Your task to perform on an android device: Go to Wikipedia Image 0: 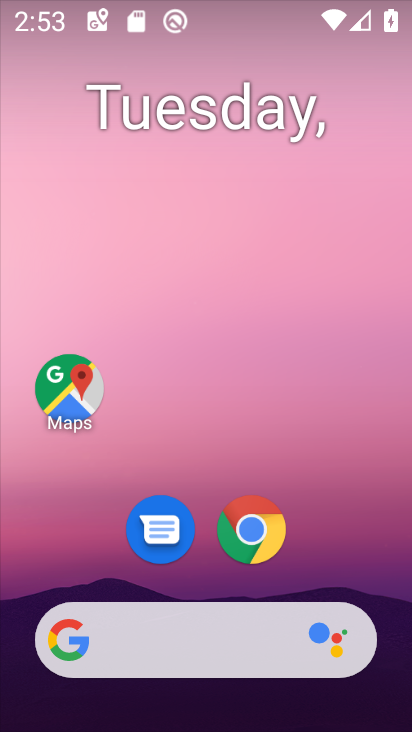
Step 0: click (250, 526)
Your task to perform on an android device: Go to Wikipedia Image 1: 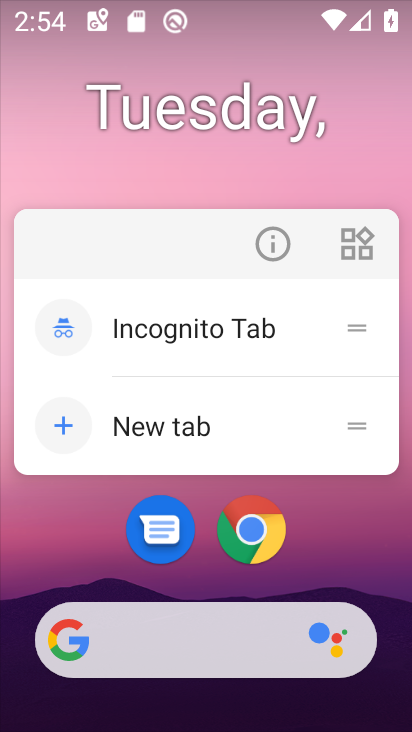
Step 1: click (334, 162)
Your task to perform on an android device: Go to Wikipedia Image 2: 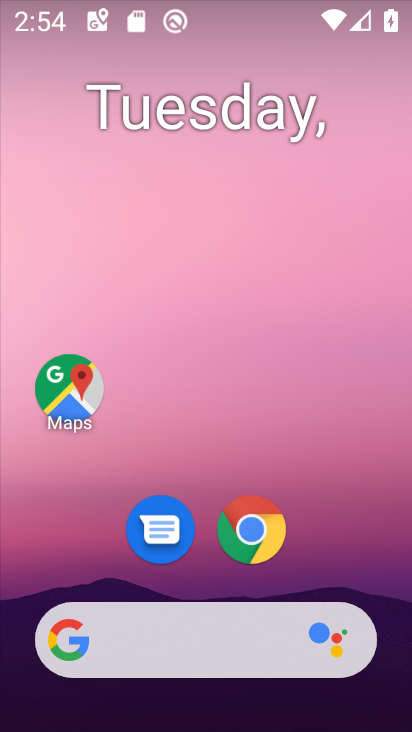
Step 2: click (233, 547)
Your task to perform on an android device: Go to Wikipedia Image 3: 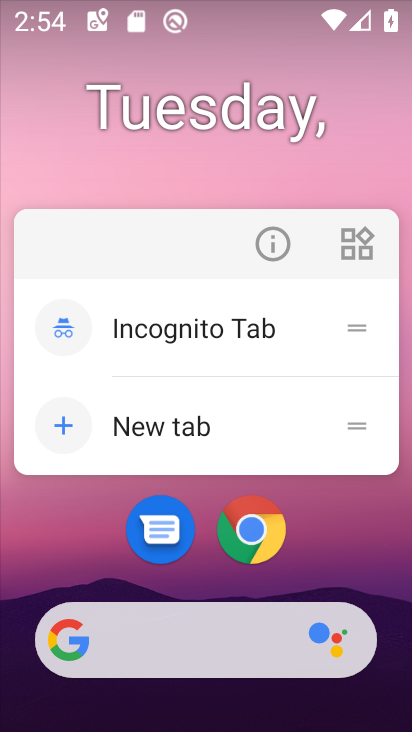
Step 3: click (233, 548)
Your task to perform on an android device: Go to Wikipedia Image 4: 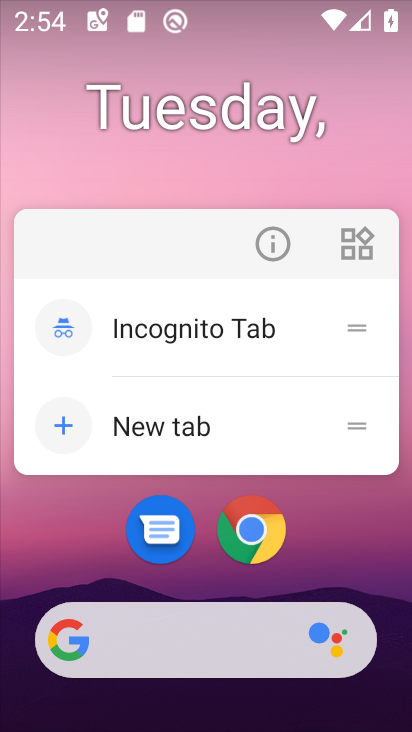
Step 4: click (248, 527)
Your task to perform on an android device: Go to Wikipedia Image 5: 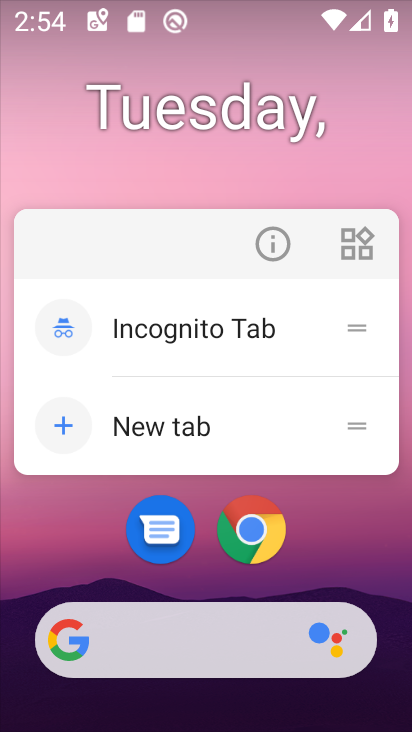
Step 5: click (259, 500)
Your task to perform on an android device: Go to Wikipedia Image 6: 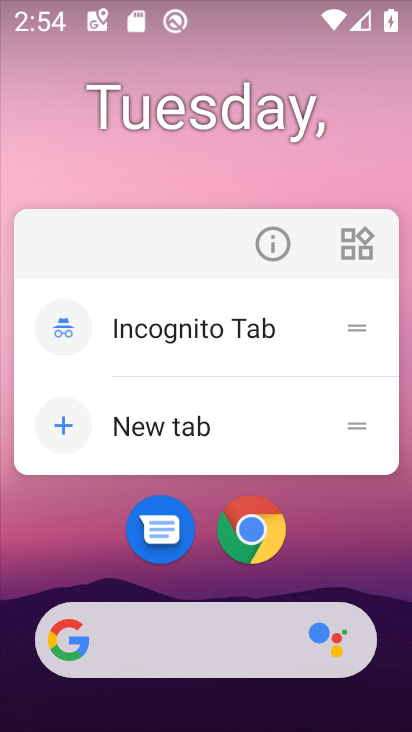
Step 6: click (230, 533)
Your task to perform on an android device: Go to Wikipedia Image 7: 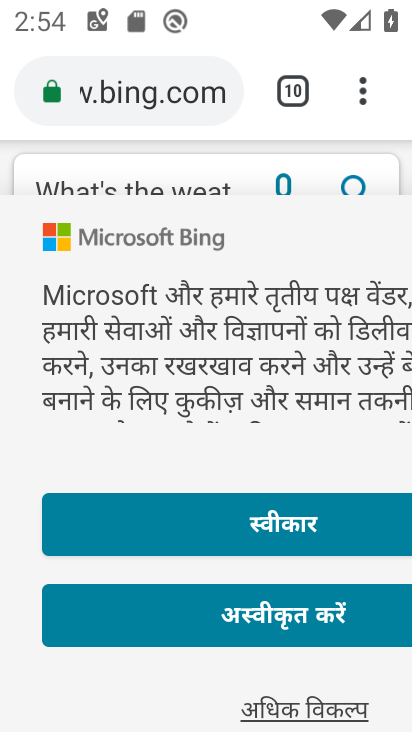
Step 7: click (370, 92)
Your task to perform on an android device: Go to Wikipedia Image 8: 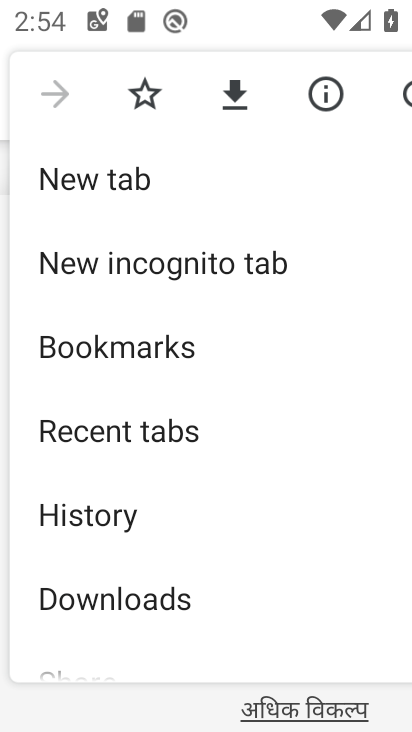
Step 8: drag from (221, 568) to (266, 232)
Your task to perform on an android device: Go to Wikipedia Image 9: 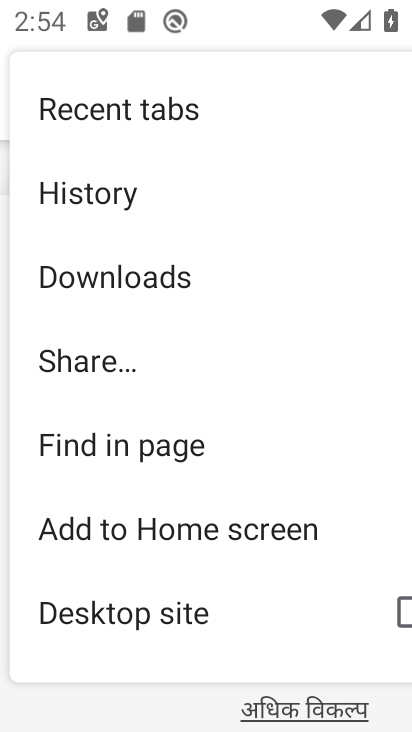
Step 9: drag from (195, 478) to (229, 164)
Your task to perform on an android device: Go to Wikipedia Image 10: 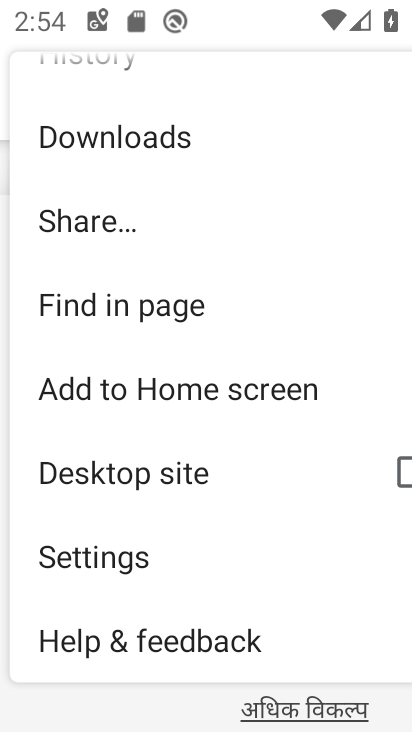
Step 10: click (115, 538)
Your task to perform on an android device: Go to Wikipedia Image 11: 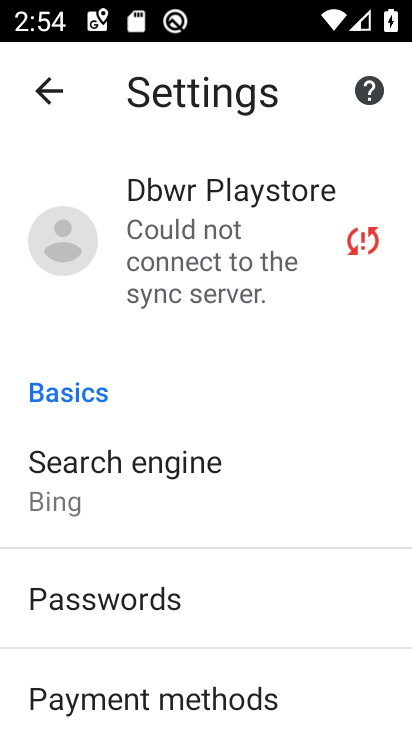
Step 11: drag from (152, 607) to (215, 249)
Your task to perform on an android device: Go to Wikipedia Image 12: 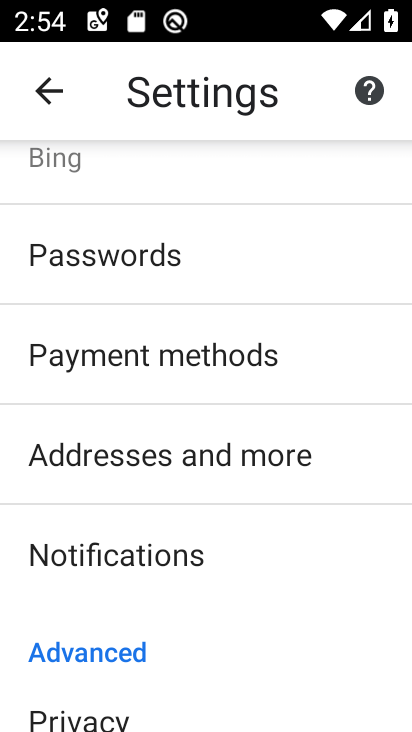
Step 12: click (60, 90)
Your task to perform on an android device: Go to Wikipedia Image 13: 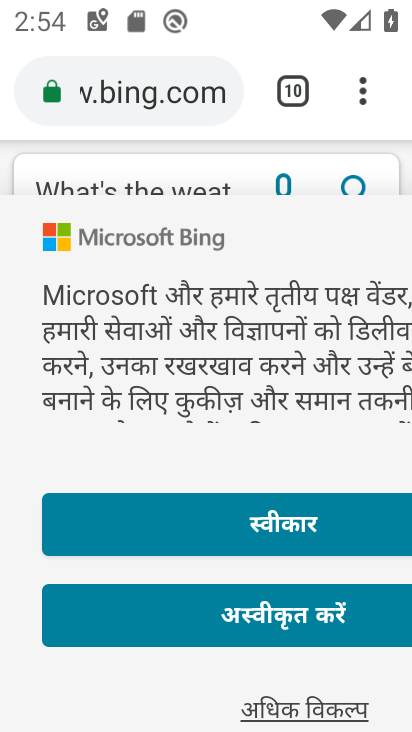
Step 13: click (367, 80)
Your task to perform on an android device: Go to Wikipedia Image 14: 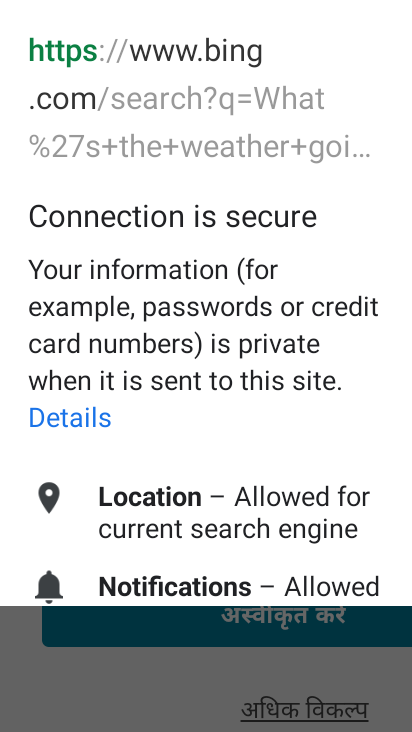
Step 14: press back button
Your task to perform on an android device: Go to Wikipedia Image 15: 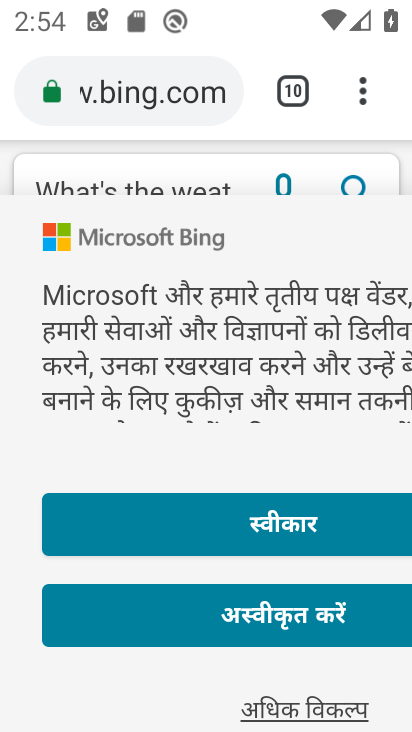
Step 15: click (368, 100)
Your task to perform on an android device: Go to Wikipedia Image 16: 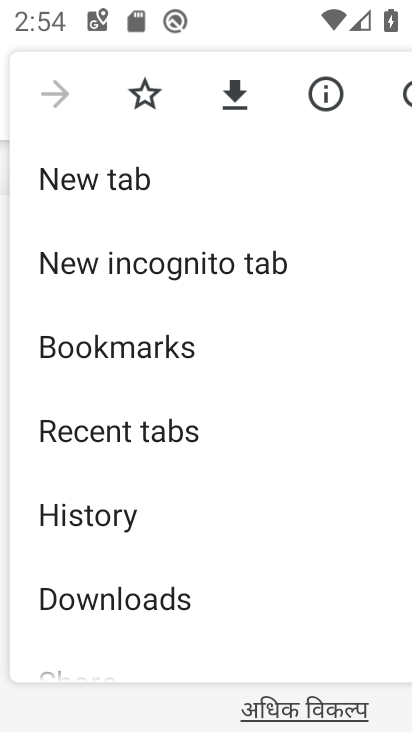
Step 16: click (185, 161)
Your task to perform on an android device: Go to Wikipedia Image 17: 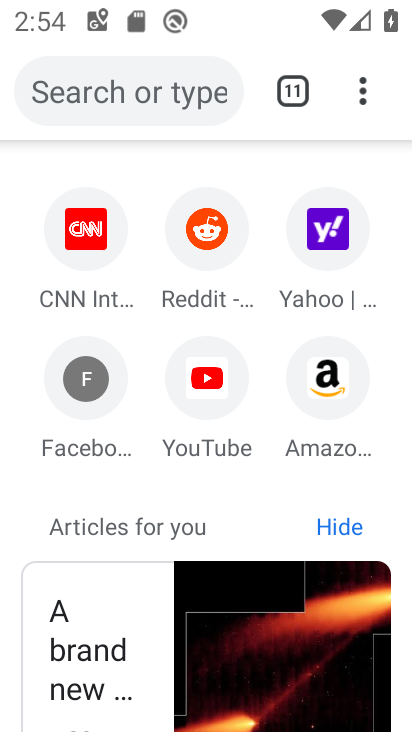
Step 17: click (140, 84)
Your task to perform on an android device: Go to Wikipedia Image 18: 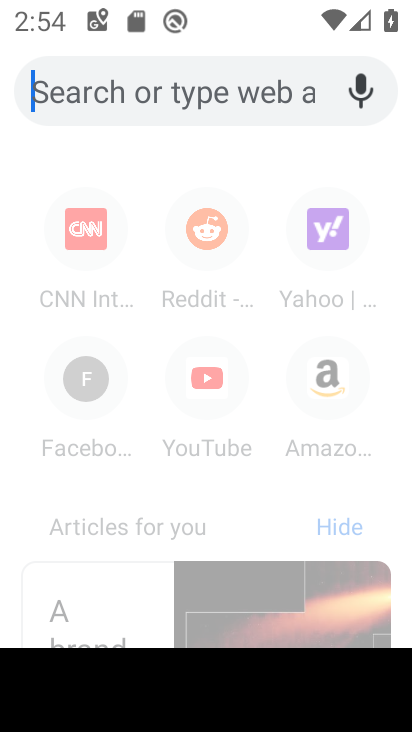
Step 18: type " Wikipedia"
Your task to perform on an android device: Go to Wikipedia Image 19: 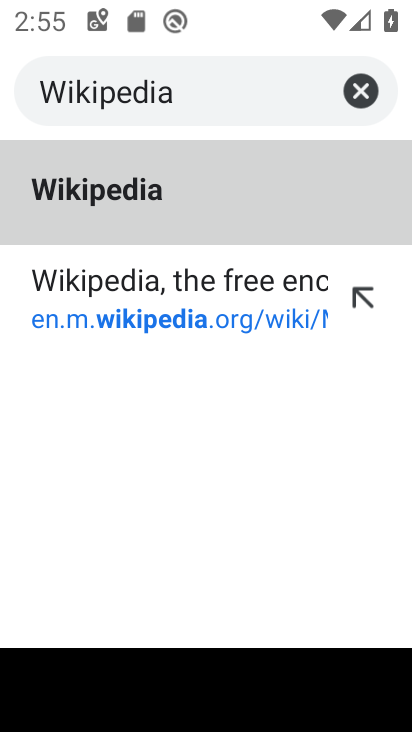
Step 19: click (115, 173)
Your task to perform on an android device: Go to Wikipedia Image 20: 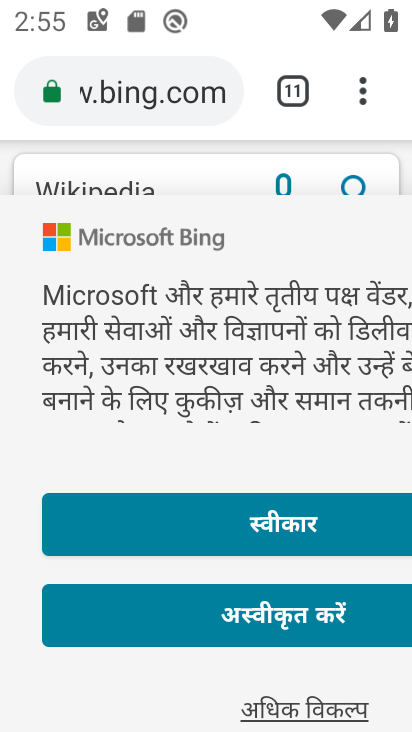
Step 20: task complete